Your task to perform on an android device: change alarm snooze length Image 0: 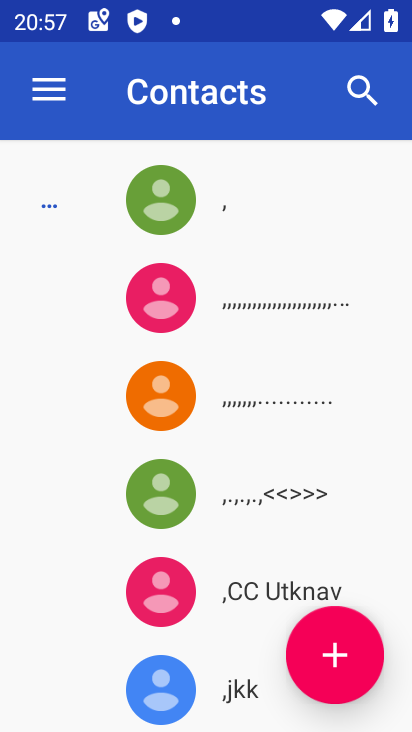
Step 0: press home button
Your task to perform on an android device: change alarm snooze length Image 1: 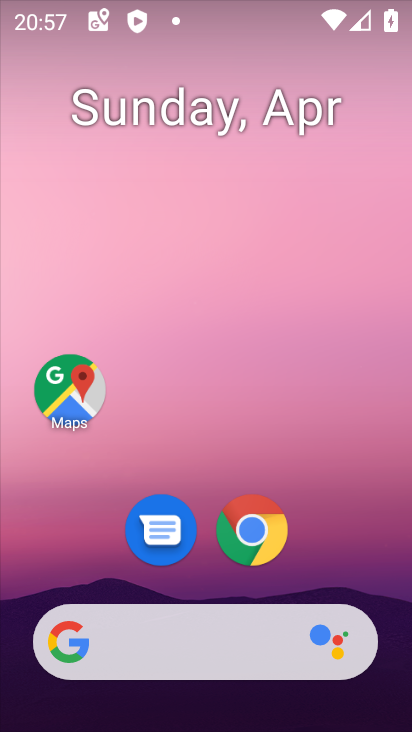
Step 1: drag from (203, 429) to (284, 83)
Your task to perform on an android device: change alarm snooze length Image 2: 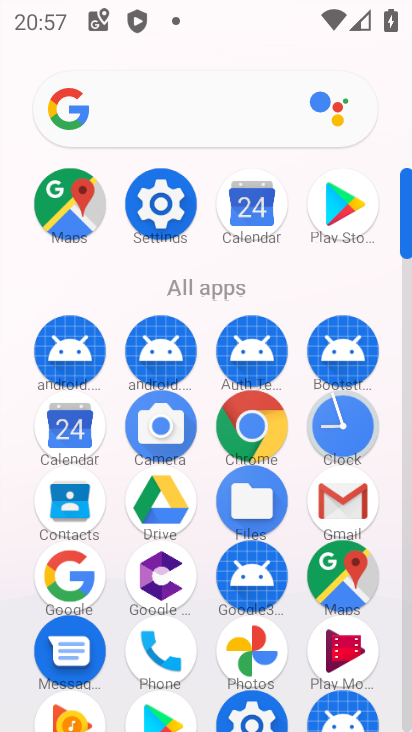
Step 2: click (325, 427)
Your task to perform on an android device: change alarm snooze length Image 3: 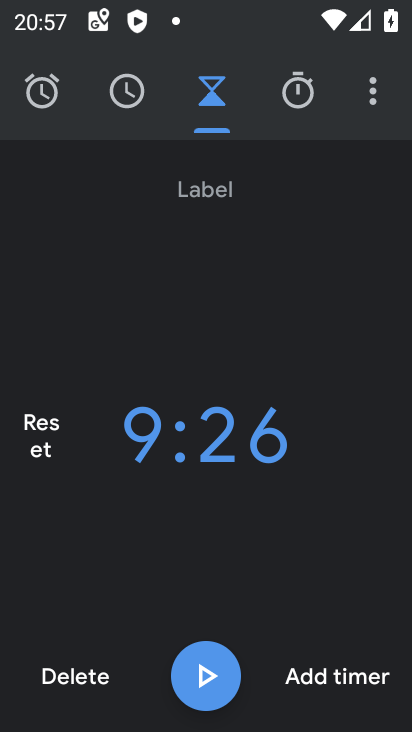
Step 3: click (380, 84)
Your task to perform on an android device: change alarm snooze length Image 4: 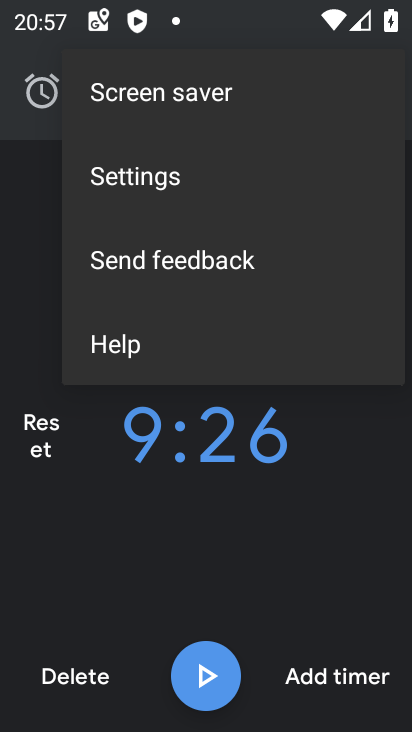
Step 4: click (180, 179)
Your task to perform on an android device: change alarm snooze length Image 5: 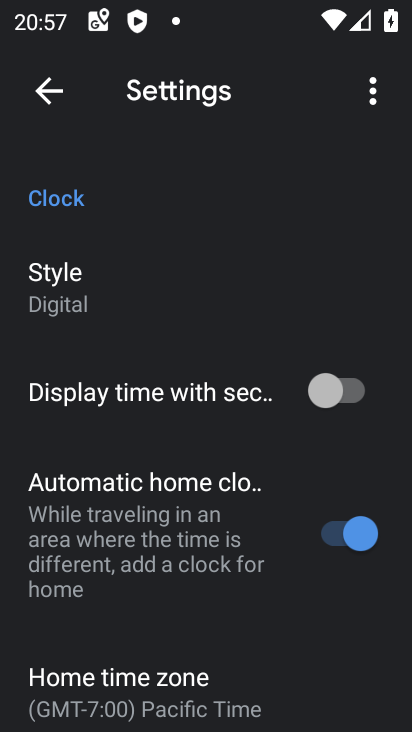
Step 5: drag from (188, 561) to (284, 2)
Your task to perform on an android device: change alarm snooze length Image 6: 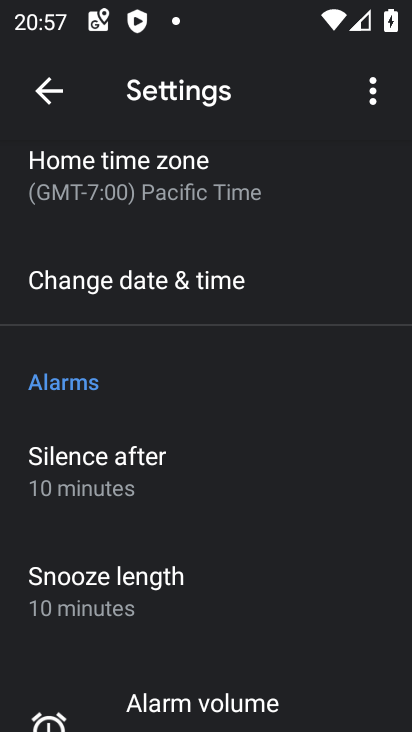
Step 6: click (126, 590)
Your task to perform on an android device: change alarm snooze length Image 7: 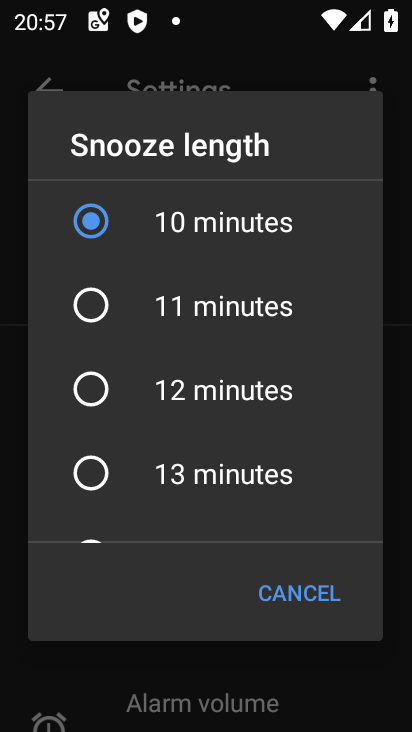
Step 7: click (182, 388)
Your task to perform on an android device: change alarm snooze length Image 8: 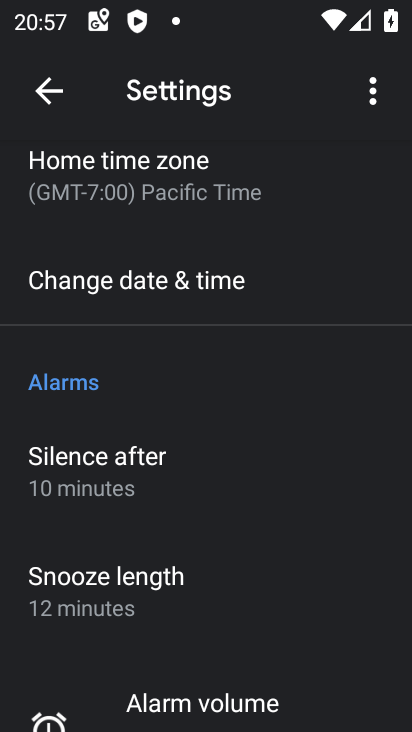
Step 8: task complete